Your task to perform on an android device: find photos in the google photos app Image 0: 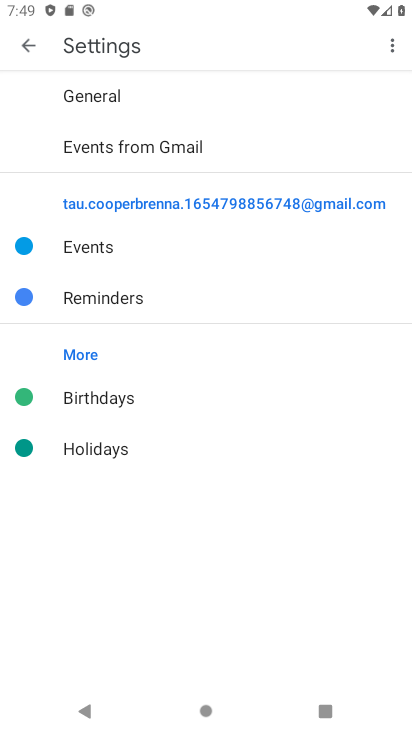
Step 0: press home button
Your task to perform on an android device: find photos in the google photos app Image 1: 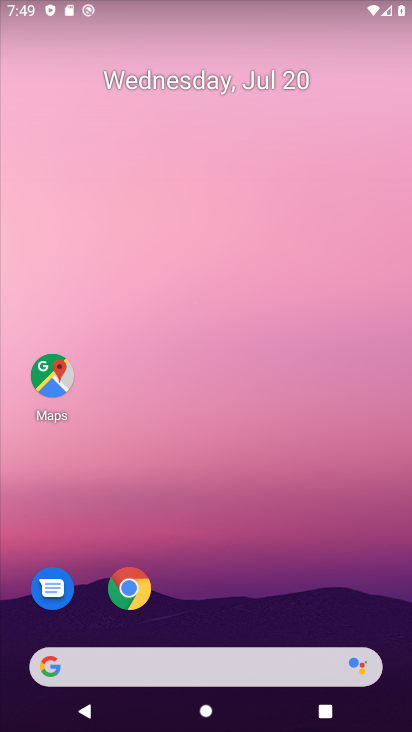
Step 1: drag from (33, 664) to (305, 35)
Your task to perform on an android device: find photos in the google photos app Image 2: 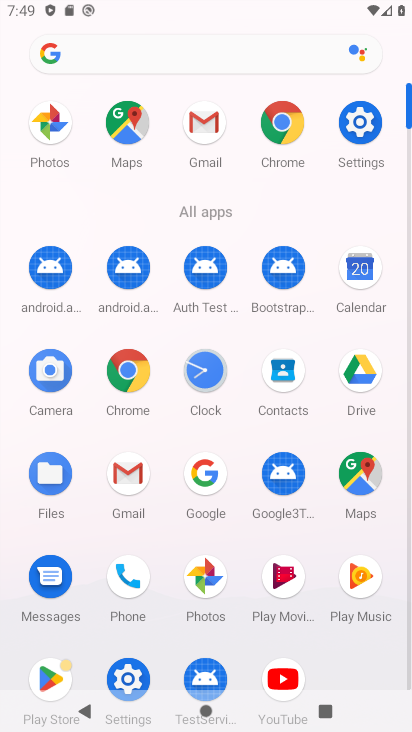
Step 2: click (204, 569)
Your task to perform on an android device: find photos in the google photos app Image 3: 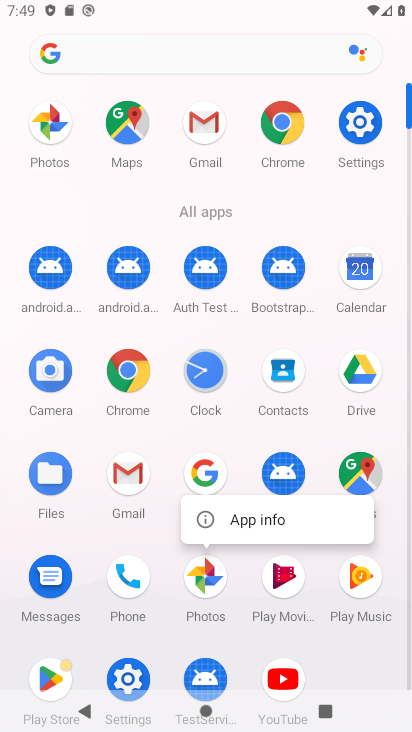
Step 3: click (203, 571)
Your task to perform on an android device: find photos in the google photos app Image 4: 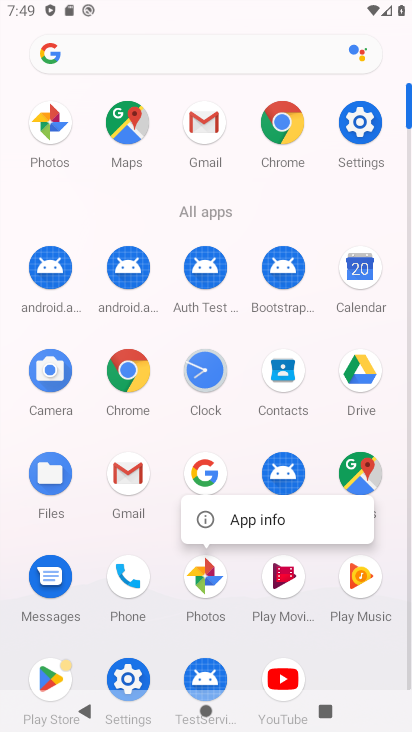
Step 4: click (207, 579)
Your task to perform on an android device: find photos in the google photos app Image 5: 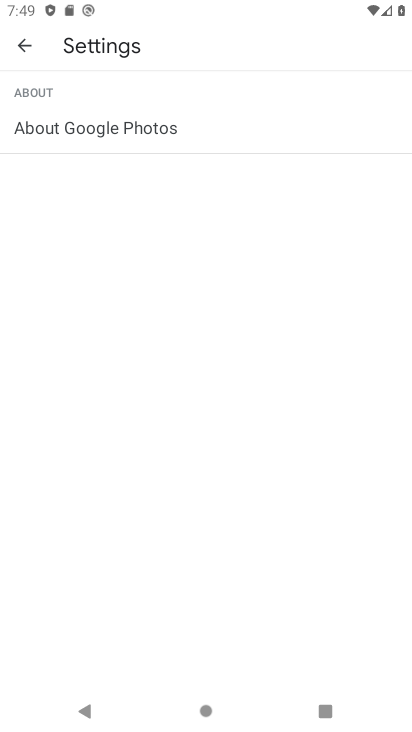
Step 5: click (16, 48)
Your task to perform on an android device: find photos in the google photos app Image 6: 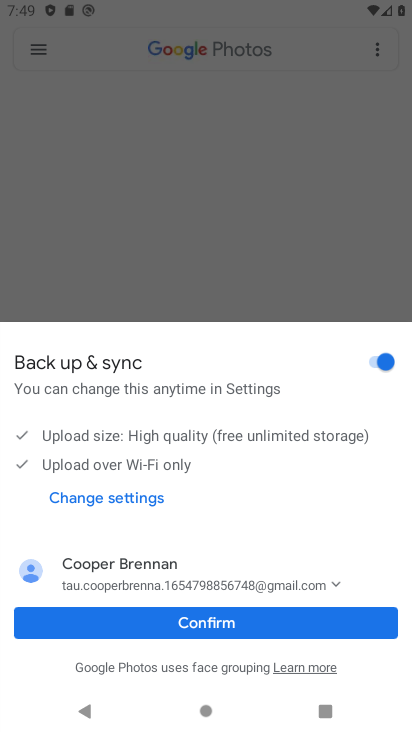
Step 6: click (171, 621)
Your task to perform on an android device: find photos in the google photos app Image 7: 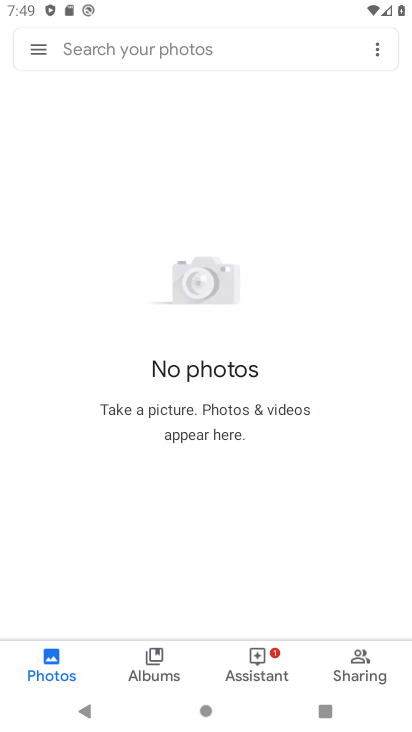
Step 7: task complete